Your task to perform on an android device: Open Chrome and go to settings Image 0: 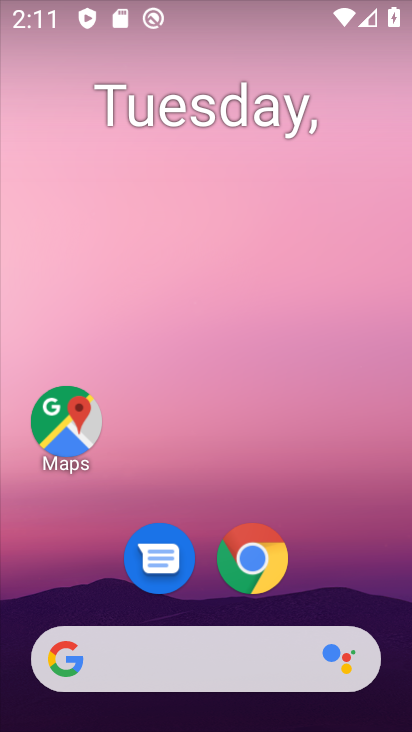
Step 0: click (260, 567)
Your task to perform on an android device: Open Chrome and go to settings Image 1: 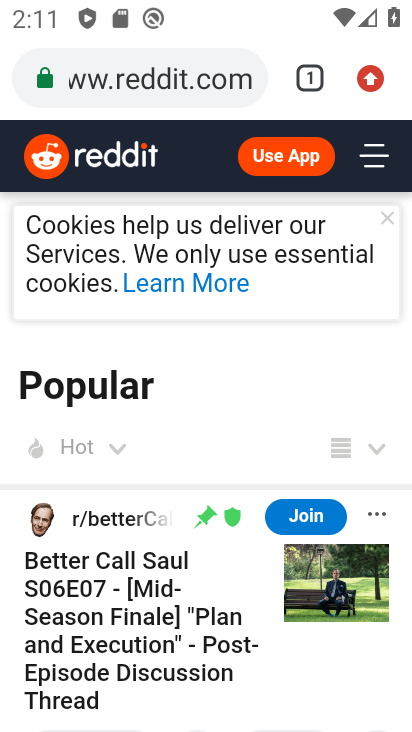
Step 1: task complete